Your task to perform on an android device: Open the calendar app, open the side menu, and click the "Day" option Image 0: 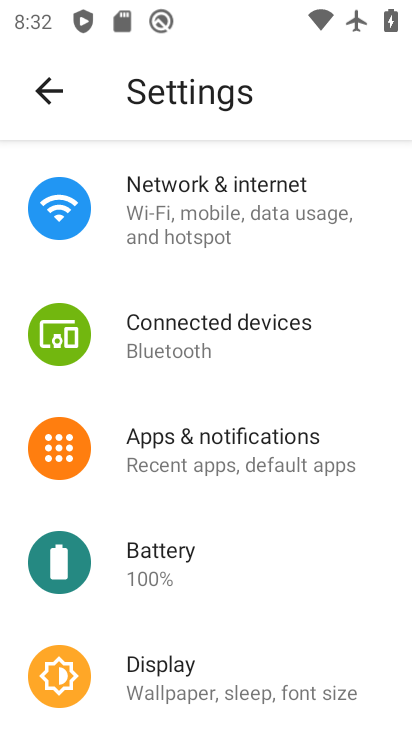
Step 0: press home button
Your task to perform on an android device: Open the calendar app, open the side menu, and click the "Day" option Image 1: 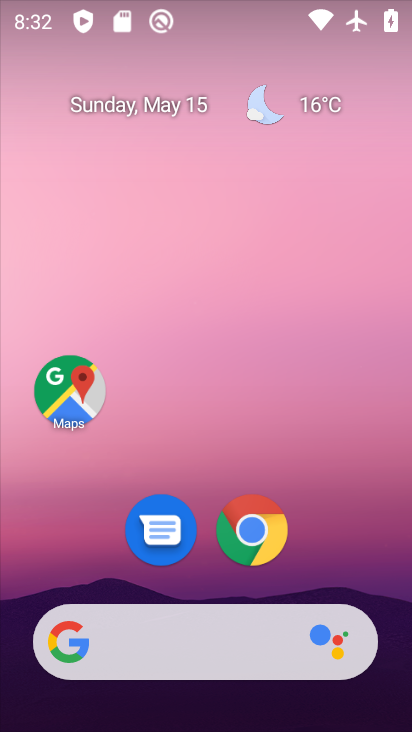
Step 1: drag from (195, 725) to (205, 108)
Your task to perform on an android device: Open the calendar app, open the side menu, and click the "Day" option Image 2: 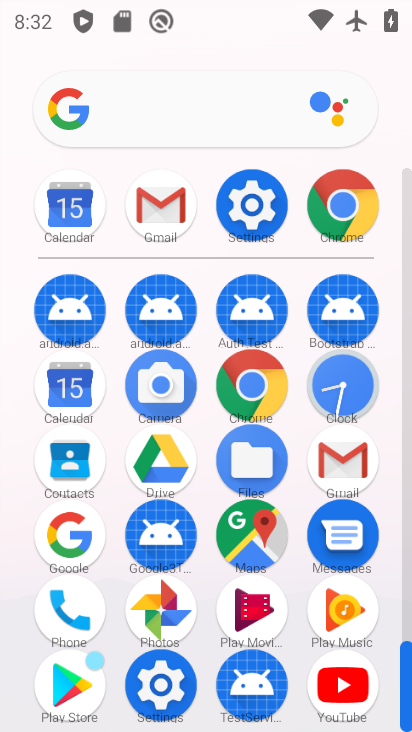
Step 2: click (65, 390)
Your task to perform on an android device: Open the calendar app, open the side menu, and click the "Day" option Image 3: 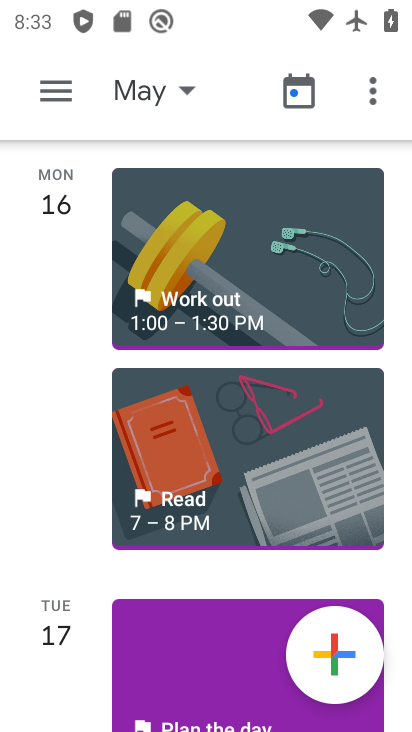
Step 3: click (50, 94)
Your task to perform on an android device: Open the calendar app, open the side menu, and click the "Day" option Image 4: 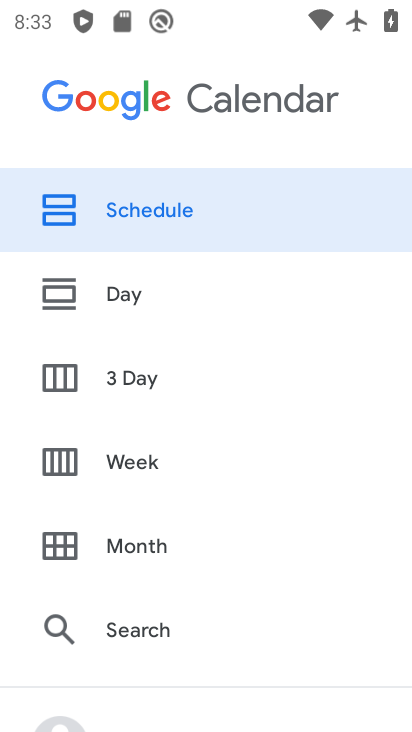
Step 4: click (127, 300)
Your task to perform on an android device: Open the calendar app, open the side menu, and click the "Day" option Image 5: 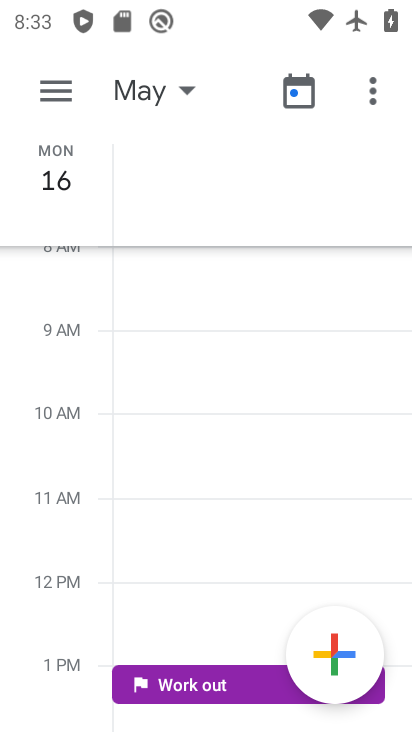
Step 5: task complete